Your task to perform on an android device: Go to notification settings Image 0: 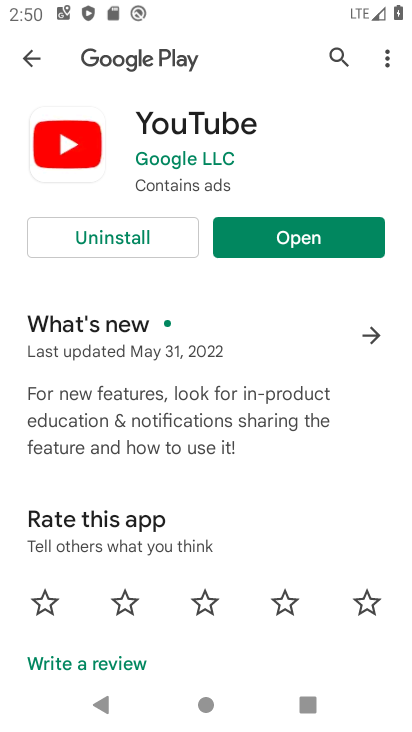
Step 0: press home button
Your task to perform on an android device: Go to notification settings Image 1: 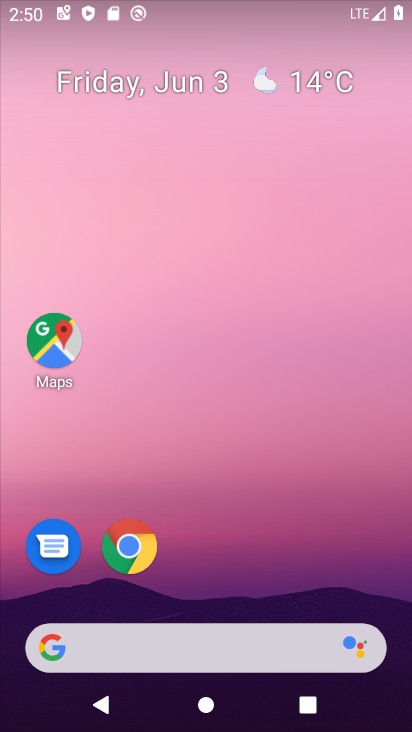
Step 1: drag from (251, 655) to (387, 166)
Your task to perform on an android device: Go to notification settings Image 2: 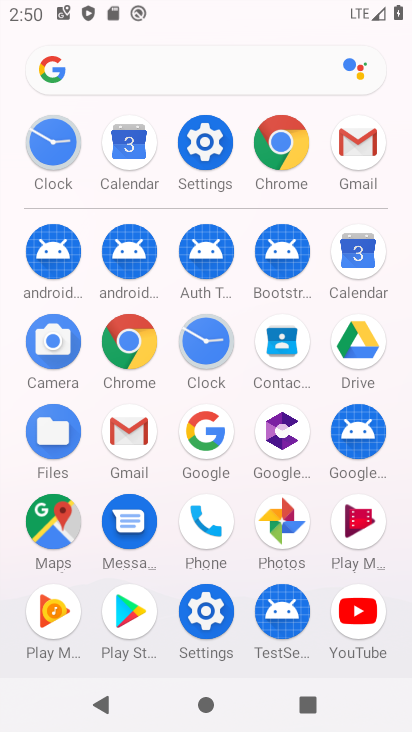
Step 2: click (214, 153)
Your task to perform on an android device: Go to notification settings Image 3: 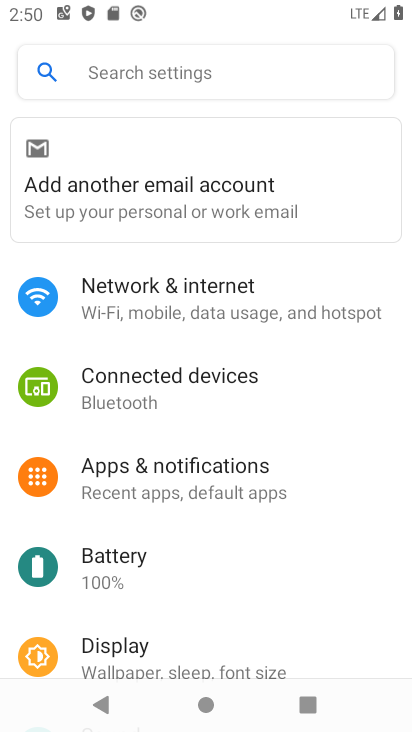
Step 3: click (135, 480)
Your task to perform on an android device: Go to notification settings Image 4: 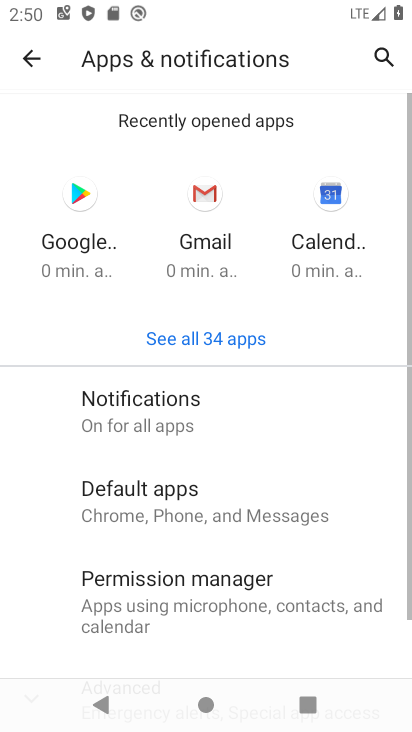
Step 4: click (156, 428)
Your task to perform on an android device: Go to notification settings Image 5: 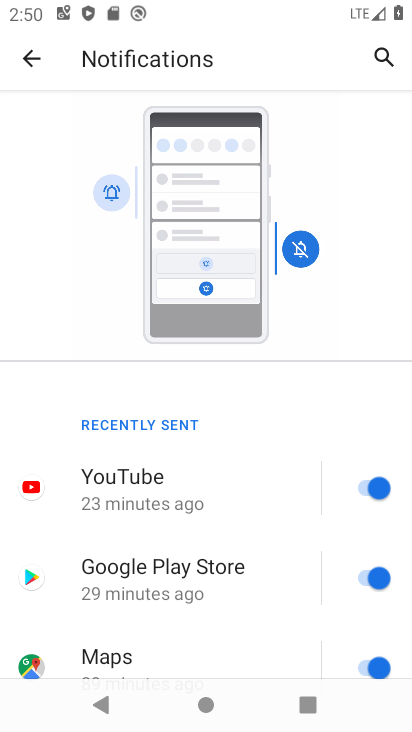
Step 5: task complete